Your task to perform on an android device: Open the stopwatch Image 0: 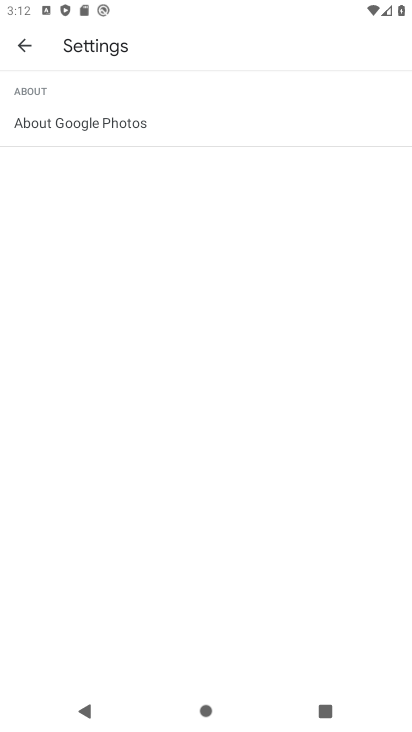
Step 0: press home button
Your task to perform on an android device: Open the stopwatch Image 1: 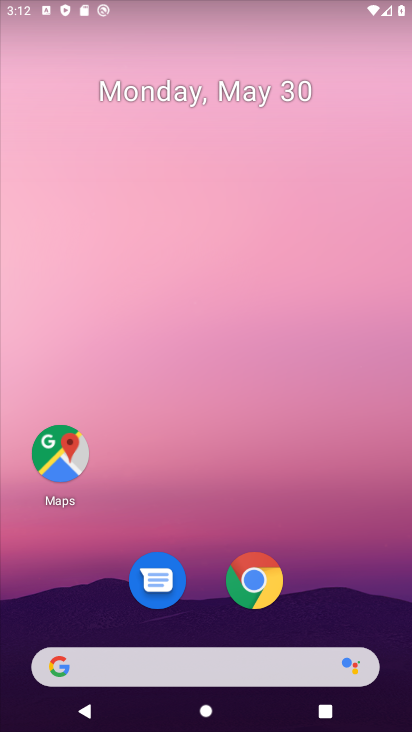
Step 1: drag from (194, 588) to (300, 58)
Your task to perform on an android device: Open the stopwatch Image 2: 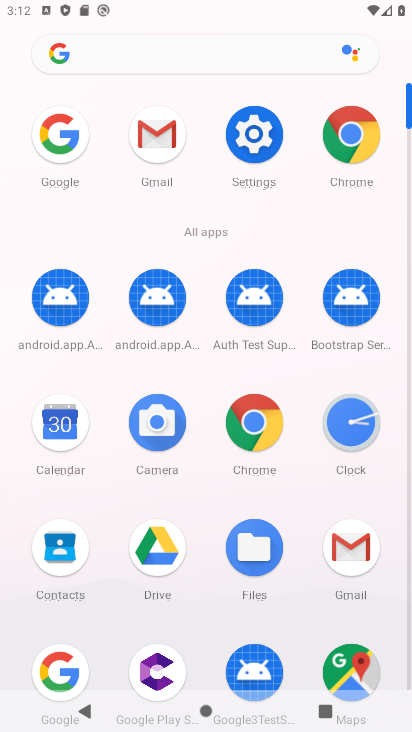
Step 2: click (353, 435)
Your task to perform on an android device: Open the stopwatch Image 3: 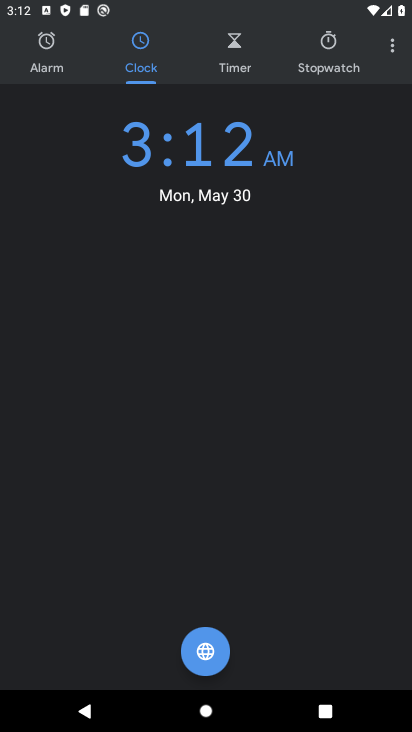
Step 3: click (325, 56)
Your task to perform on an android device: Open the stopwatch Image 4: 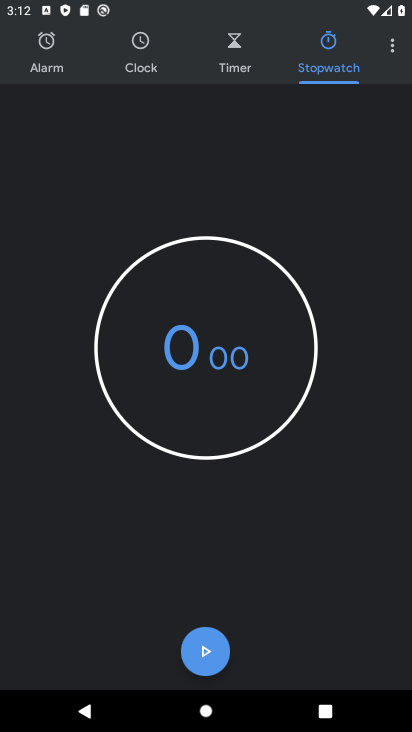
Step 4: click (216, 660)
Your task to perform on an android device: Open the stopwatch Image 5: 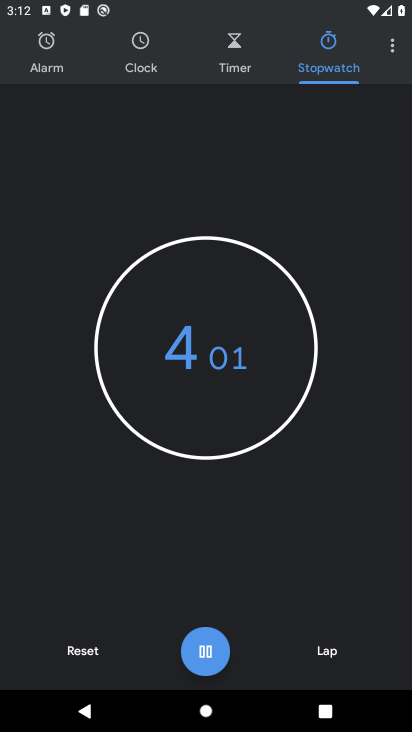
Step 5: task complete